Your task to perform on an android device: turn pop-ups off in chrome Image 0: 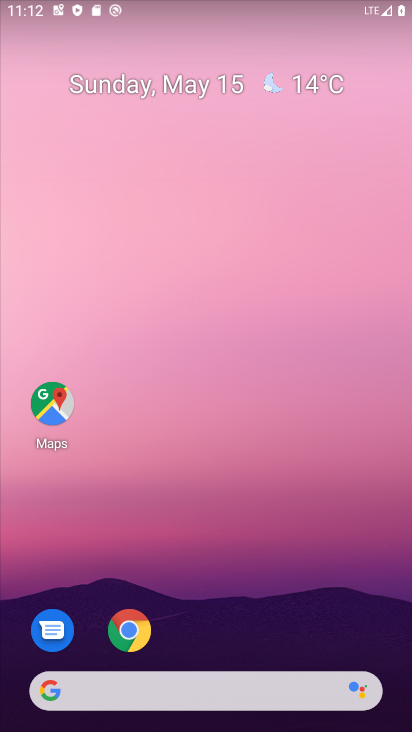
Step 0: click (128, 627)
Your task to perform on an android device: turn pop-ups off in chrome Image 1: 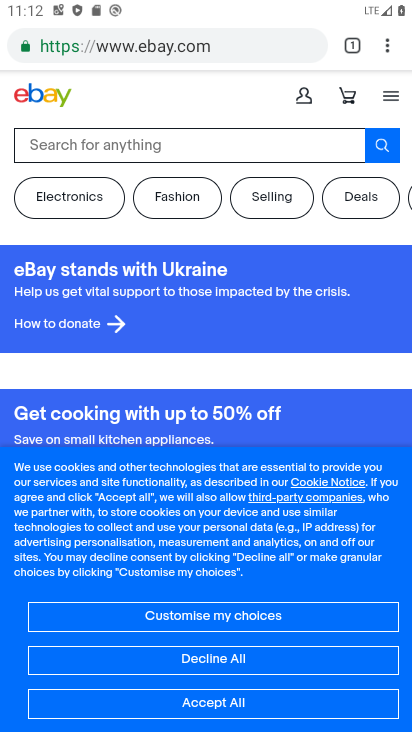
Step 1: click (391, 38)
Your task to perform on an android device: turn pop-ups off in chrome Image 2: 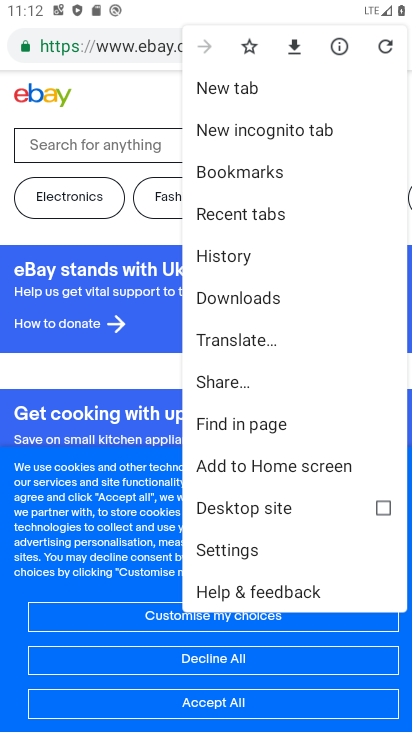
Step 2: click (229, 546)
Your task to perform on an android device: turn pop-ups off in chrome Image 3: 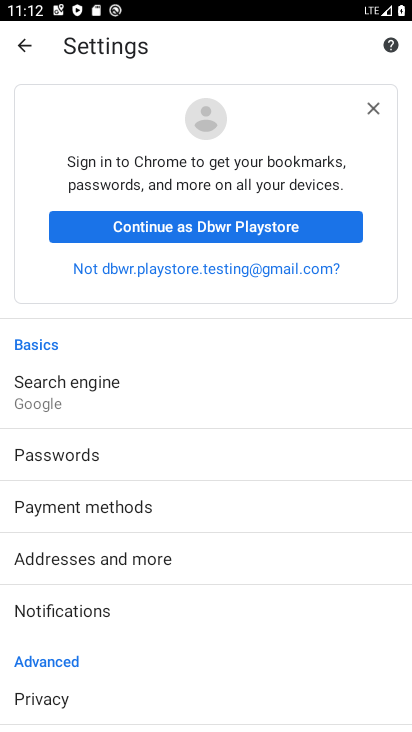
Step 3: drag from (17, 590) to (286, 116)
Your task to perform on an android device: turn pop-ups off in chrome Image 4: 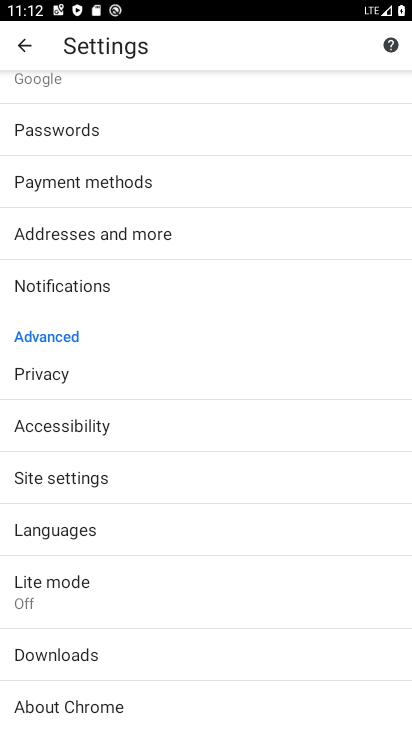
Step 4: click (99, 474)
Your task to perform on an android device: turn pop-ups off in chrome Image 5: 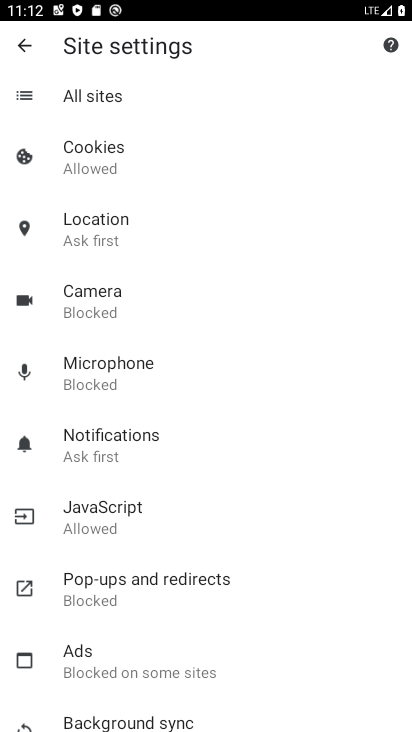
Step 5: click (131, 585)
Your task to perform on an android device: turn pop-ups off in chrome Image 6: 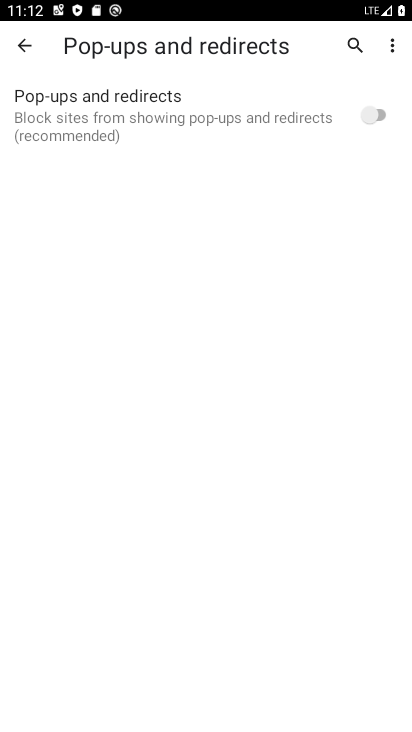
Step 6: click (380, 114)
Your task to perform on an android device: turn pop-ups off in chrome Image 7: 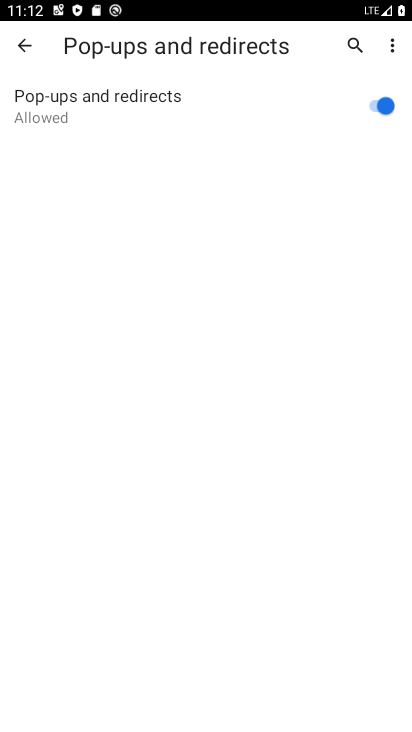
Step 7: click (380, 111)
Your task to perform on an android device: turn pop-ups off in chrome Image 8: 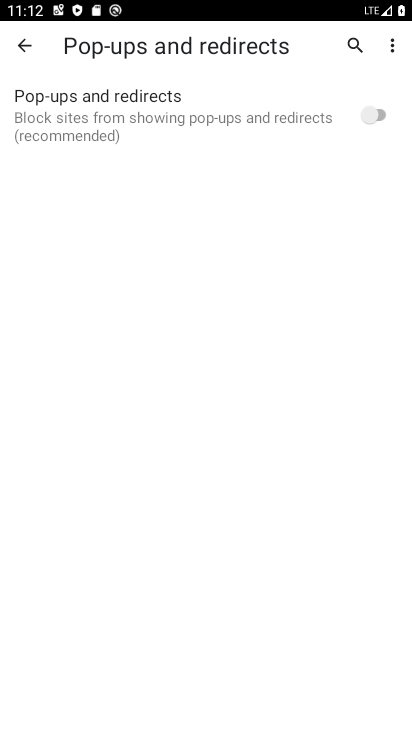
Step 8: task complete